Your task to perform on an android device: Show me the alarms in the clock app Image 0: 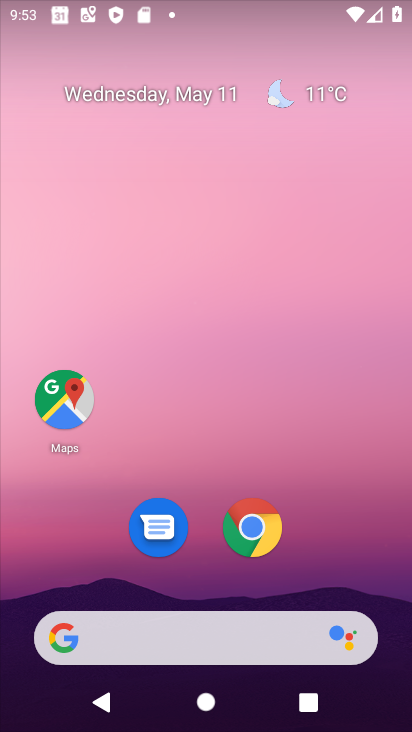
Step 0: drag from (346, 545) to (351, 109)
Your task to perform on an android device: Show me the alarms in the clock app Image 1: 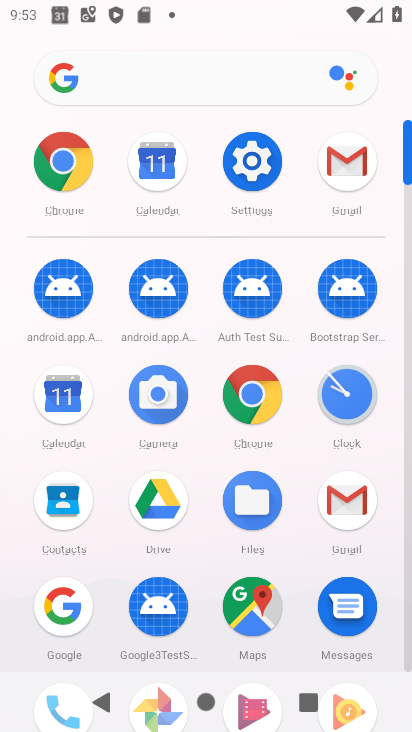
Step 1: click (342, 403)
Your task to perform on an android device: Show me the alarms in the clock app Image 2: 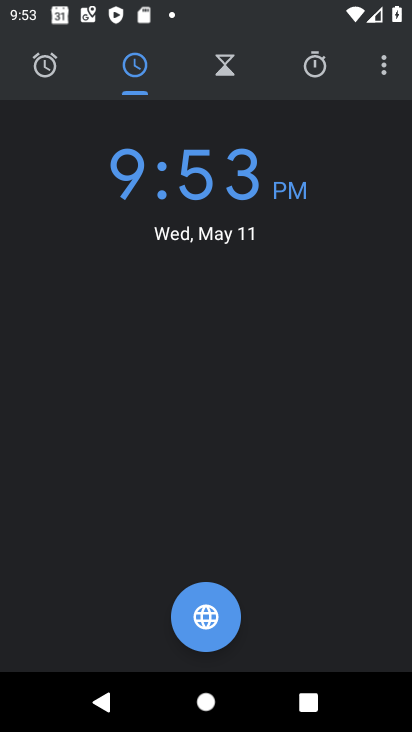
Step 2: click (399, 65)
Your task to perform on an android device: Show me the alarms in the clock app Image 3: 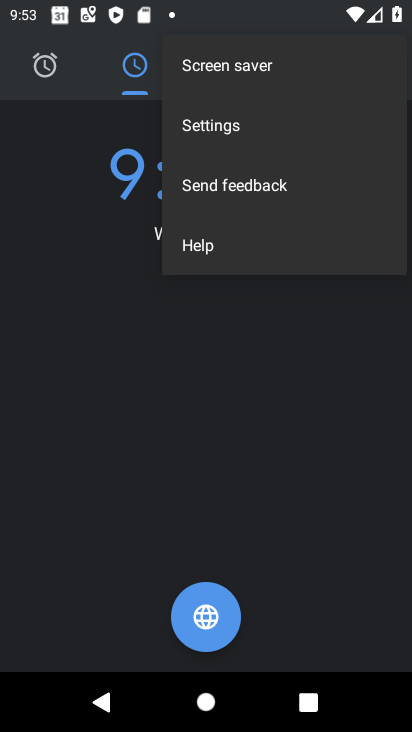
Step 3: click (221, 130)
Your task to perform on an android device: Show me the alarms in the clock app Image 4: 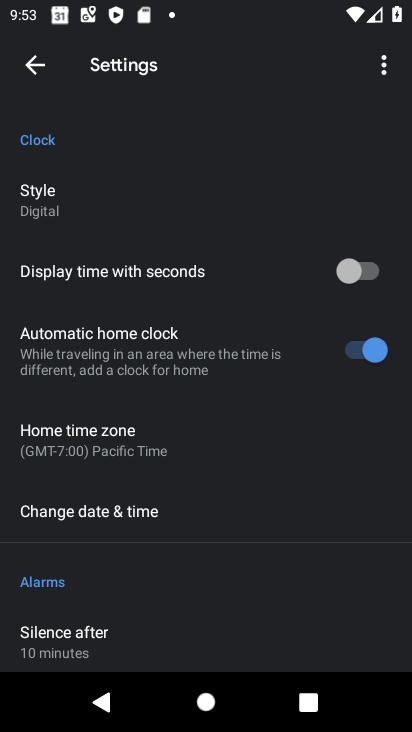
Step 4: drag from (216, 547) to (207, 193)
Your task to perform on an android device: Show me the alarms in the clock app Image 5: 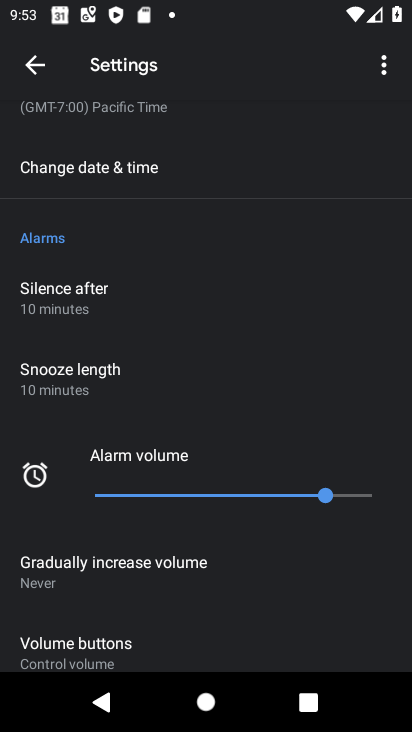
Step 5: click (118, 167)
Your task to perform on an android device: Show me the alarms in the clock app Image 6: 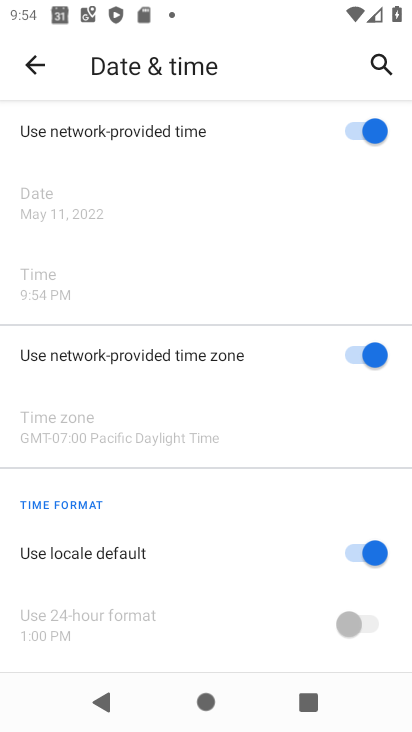
Step 6: click (34, 50)
Your task to perform on an android device: Show me the alarms in the clock app Image 7: 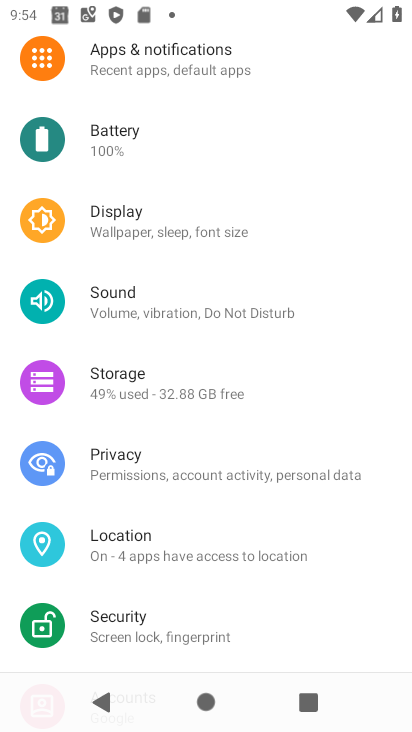
Step 7: press home button
Your task to perform on an android device: Show me the alarms in the clock app Image 8: 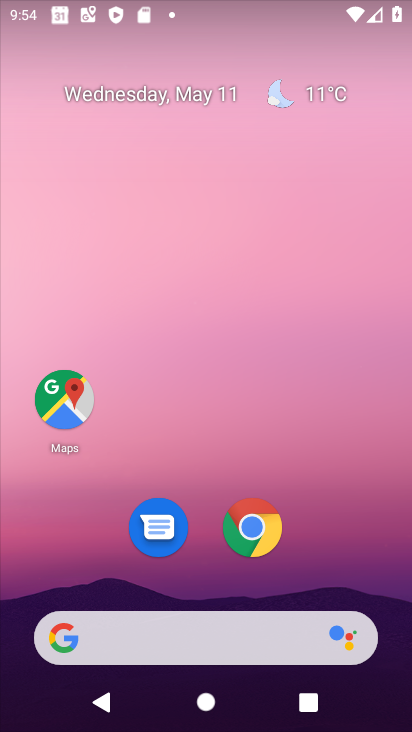
Step 8: drag from (329, 506) to (246, 83)
Your task to perform on an android device: Show me the alarms in the clock app Image 9: 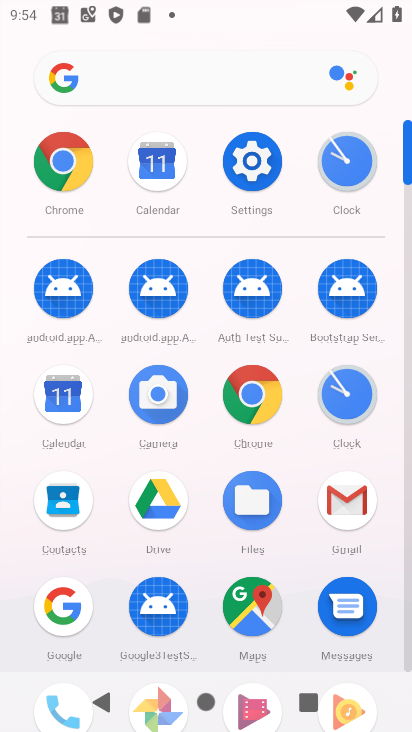
Step 9: click (360, 417)
Your task to perform on an android device: Show me the alarms in the clock app Image 10: 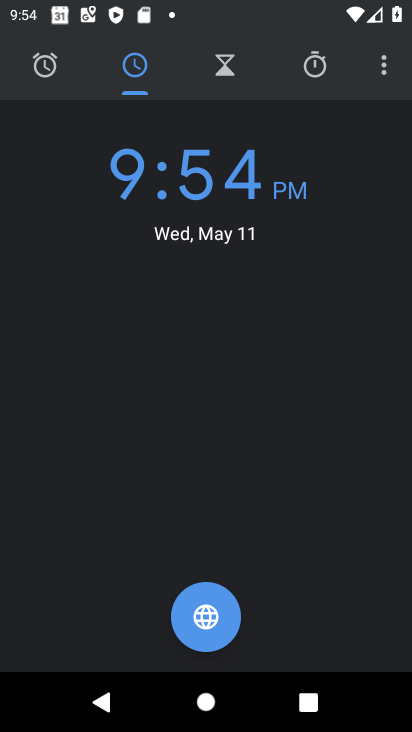
Step 10: click (51, 75)
Your task to perform on an android device: Show me the alarms in the clock app Image 11: 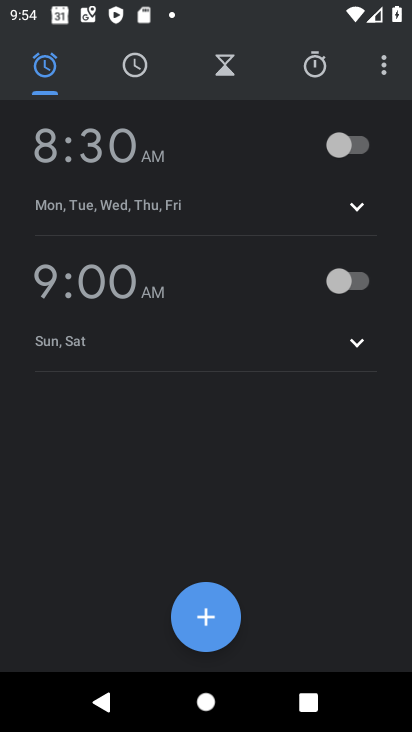
Step 11: task complete